Your task to perform on an android device: change your default location settings in chrome Image 0: 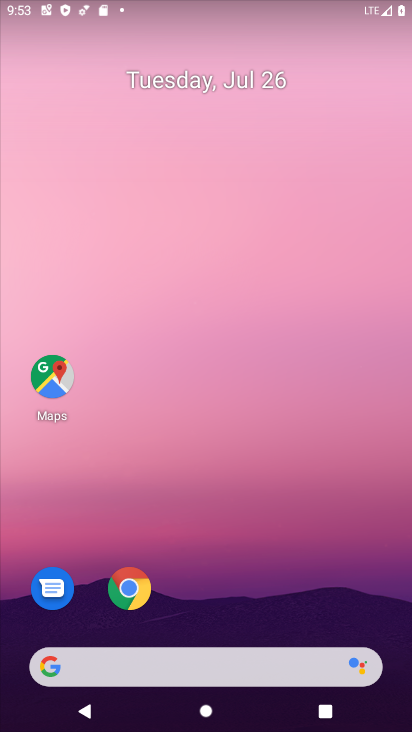
Step 0: click (128, 589)
Your task to perform on an android device: change your default location settings in chrome Image 1: 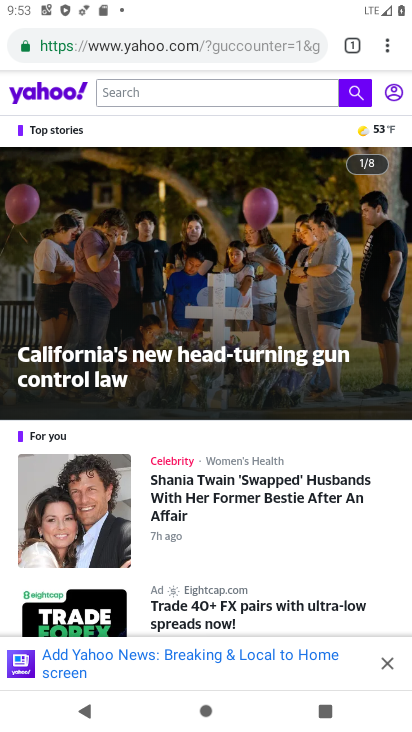
Step 1: click (388, 47)
Your task to perform on an android device: change your default location settings in chrome Image 2: 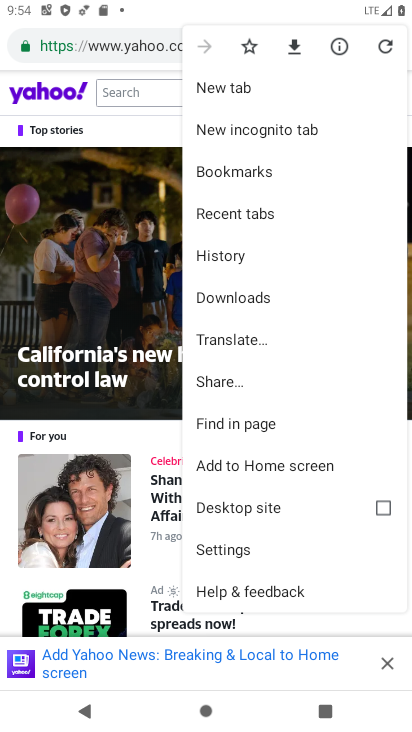
Step 2: click (245, 550)
Your task to perform on an android device: change your default location settings in chrome Image 3: 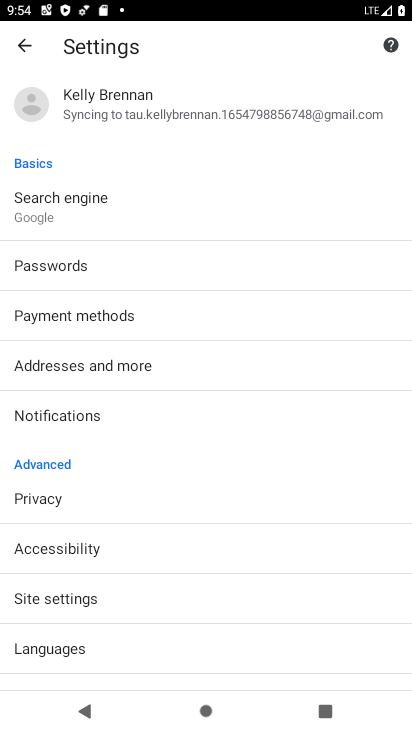
Step 3: click (78, 598)
Your task to perform on an android device: change your default location settings in chrome Image 4: 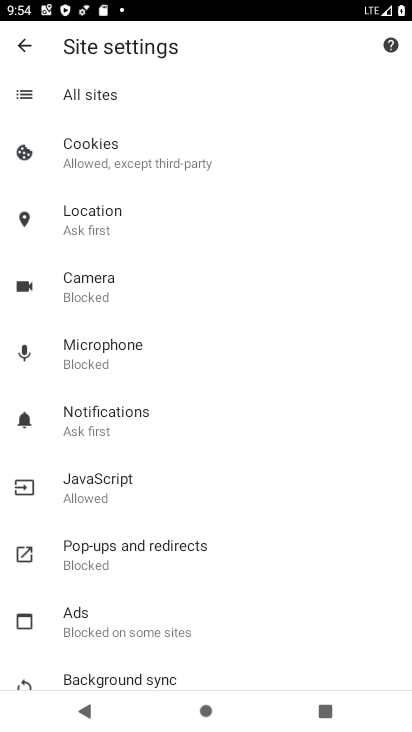
Step 4: click (102, 232)
Your task to perform on an android device: change your default location settings in chrome Image 5: 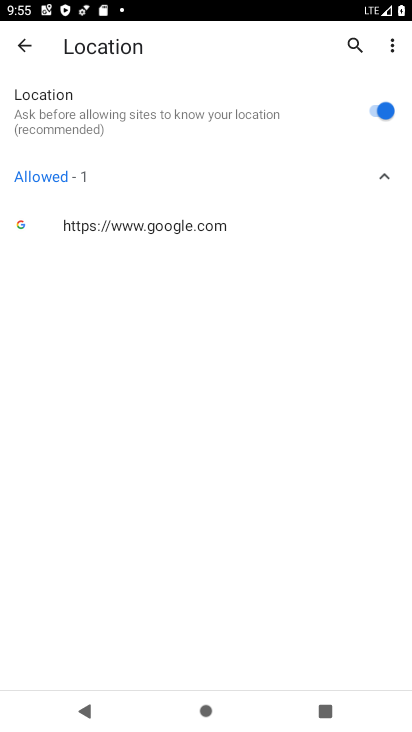
Step 5: click (379, 111)
Your task to perform on an android device: change your default location settings in chrome Image 6: 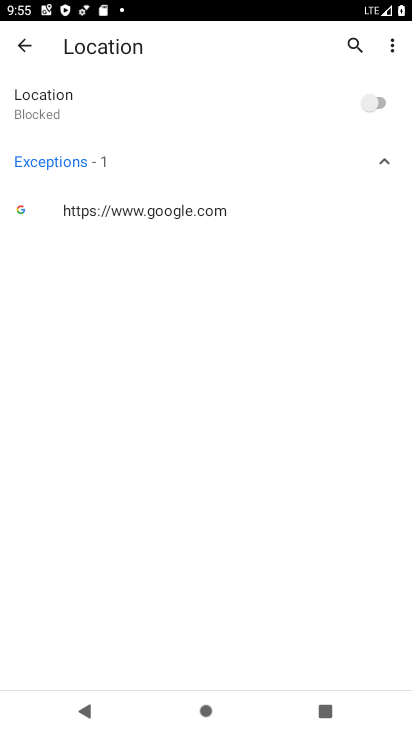
Step 6: task complete